Your task to perform on an android device: Add energizer triple a to the cart on costco.com, then select checkout. Image 0: 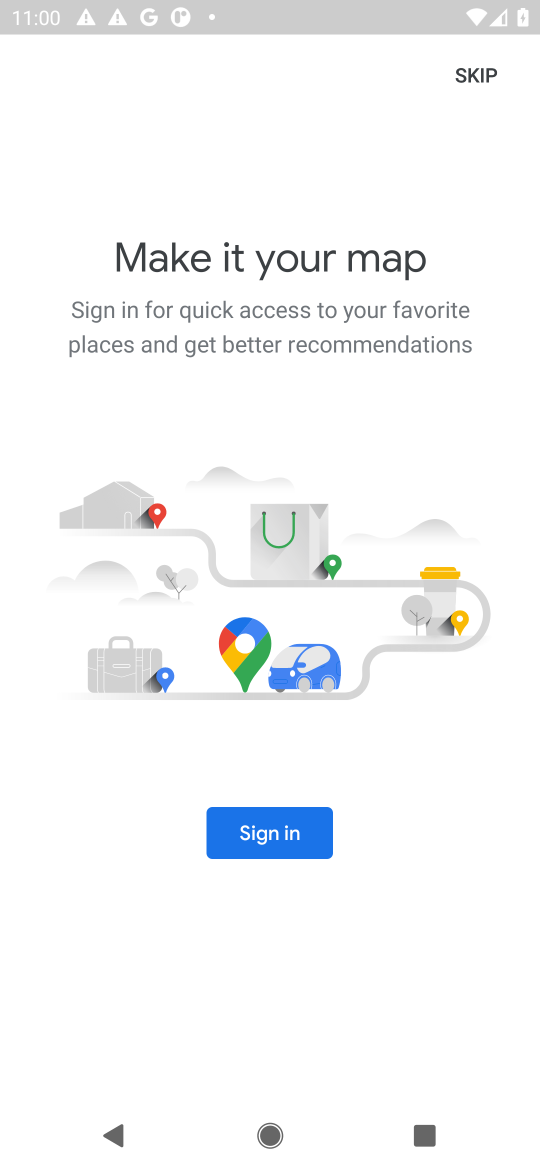
Step 0: press home button
Your task to perform on an android device: Add energizer triple a to the cart on costco.com, then select checkout. Image 1: 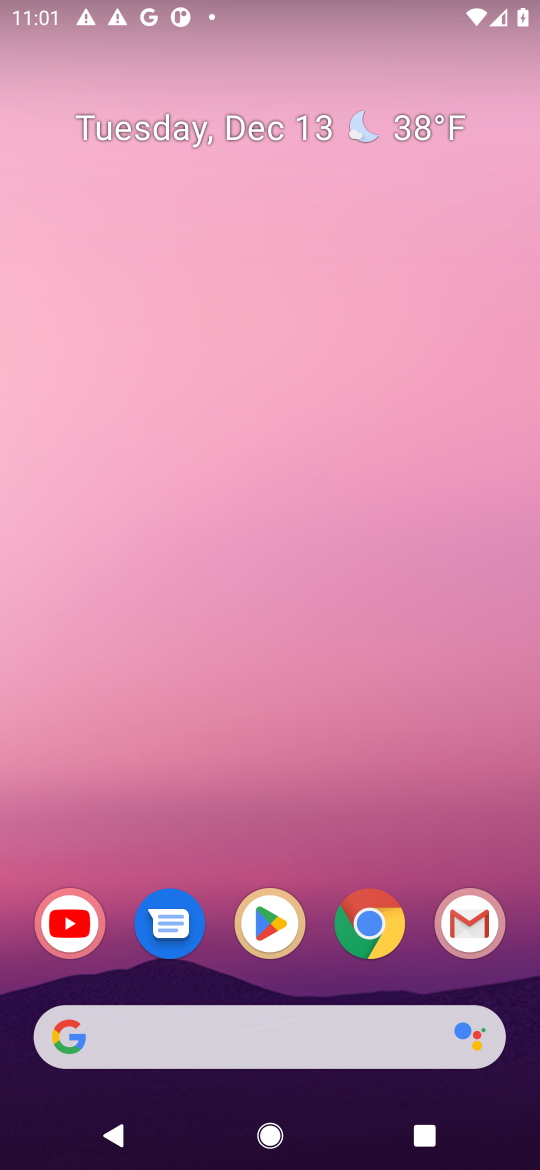
Step 1: click (348, 1034)
Your task to perform on an android device: Add energizer triple a to the cart on costco.com, then select checkout. Image 2: 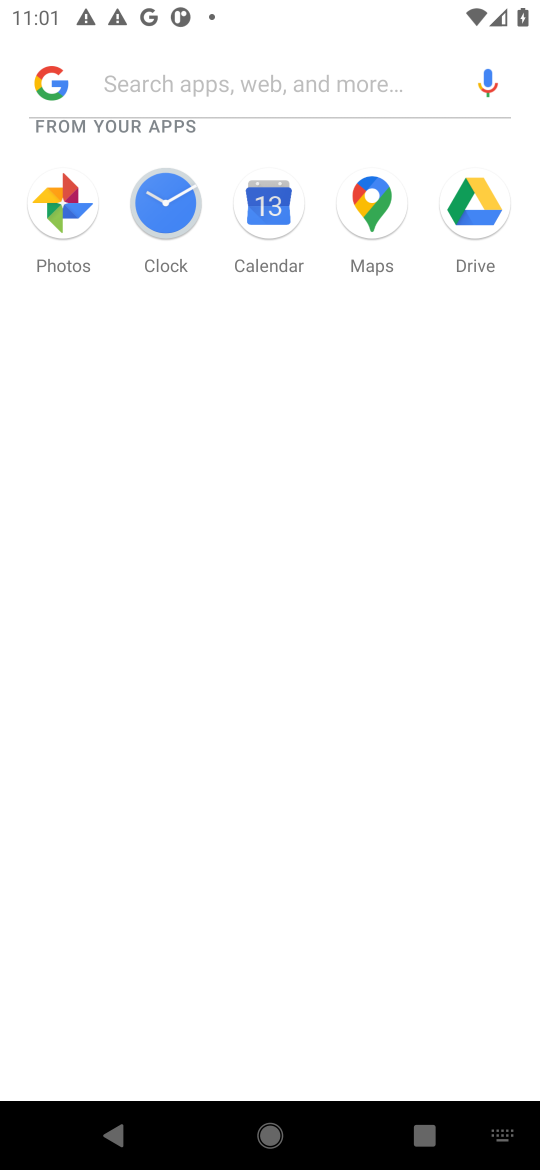
Step 2: press home button
Your task to perform on an android device: Add energizer triple a to the cart on costco.com, then select checkout. Image 3: 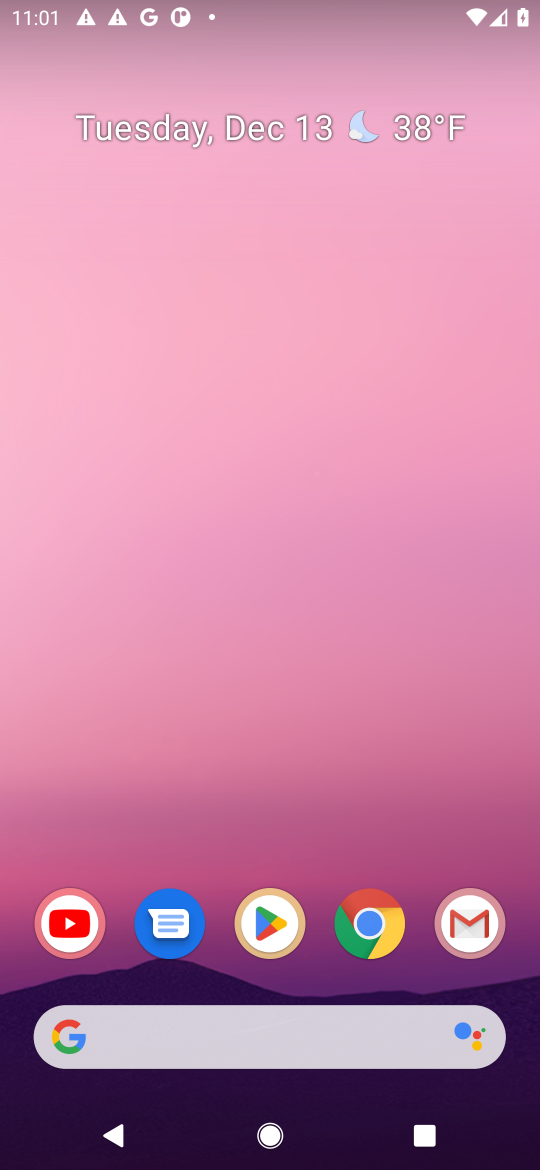
Step 3: click (277, 1049)
Your task to perform on an android device: Add energizer triple a to the cart on costco.com, then select checkout. Image 4: 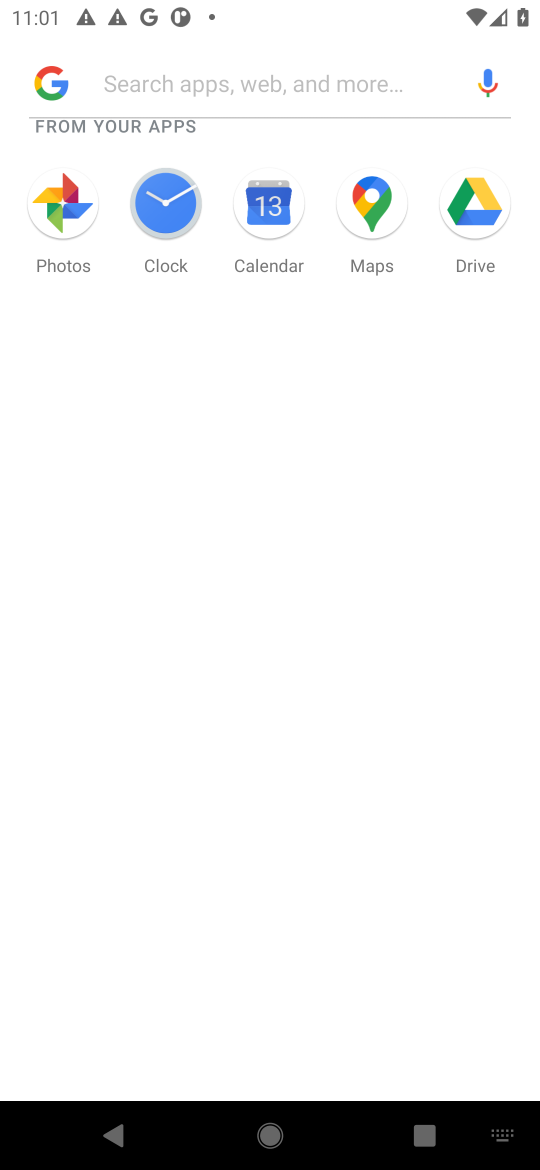
Step 4: type "costco.com"
Your task to perform on an android device: Add energizer triple a to the cart on costco.com, then select checkout. Image 5: 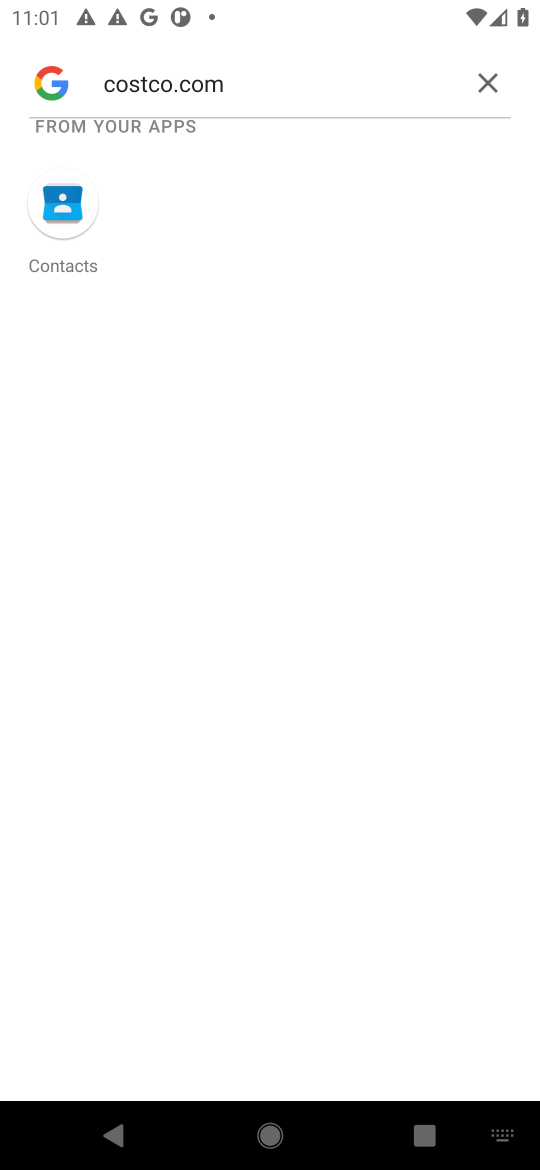
Step 5: press home button
Your task to perform on an android device: Add energizer triple a to the cart on costco.com, then select checkout. Image 6: 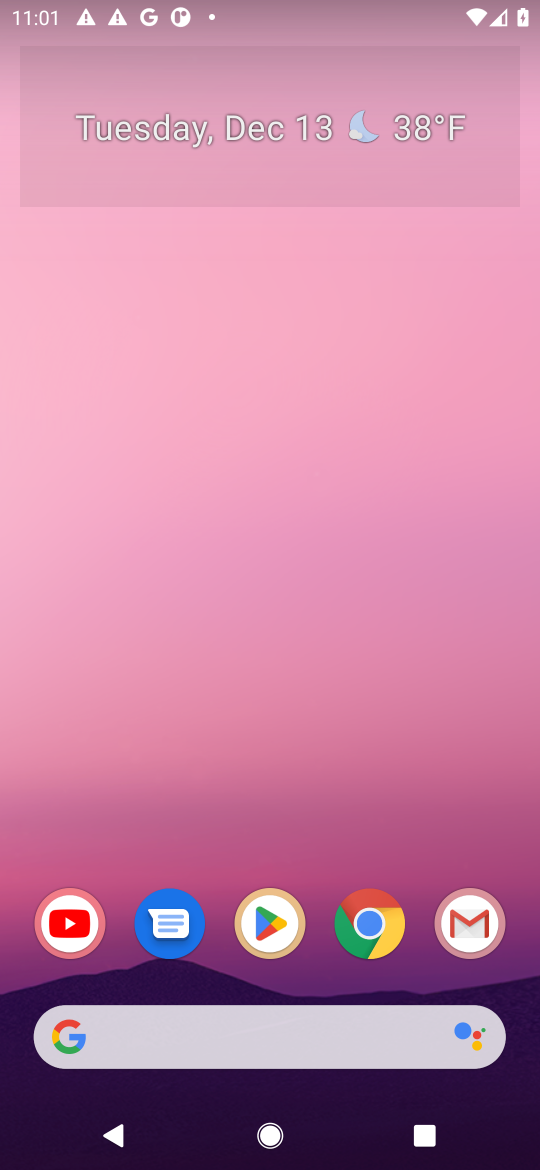
Step 6: click (379, 942)
Your task to perform on an android device: Add energizer triple a to the cart on costco.com, then select checkout. Image 7: 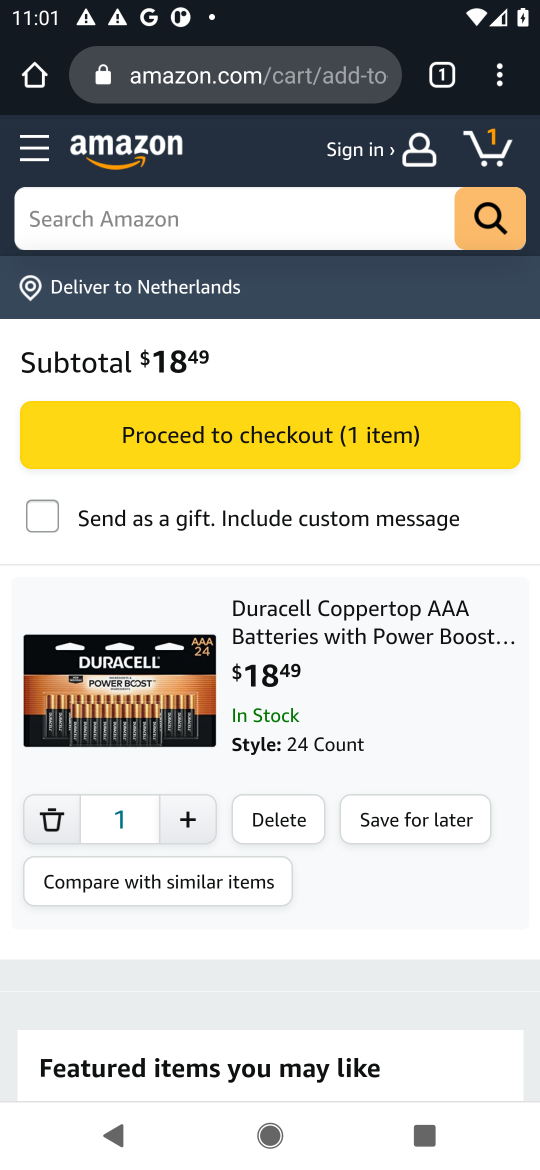
Step 7: click (291, 96)
Your task to perform on an android device: Add energizer triple a to the cart on costco.com, then select checkout. Image 8: 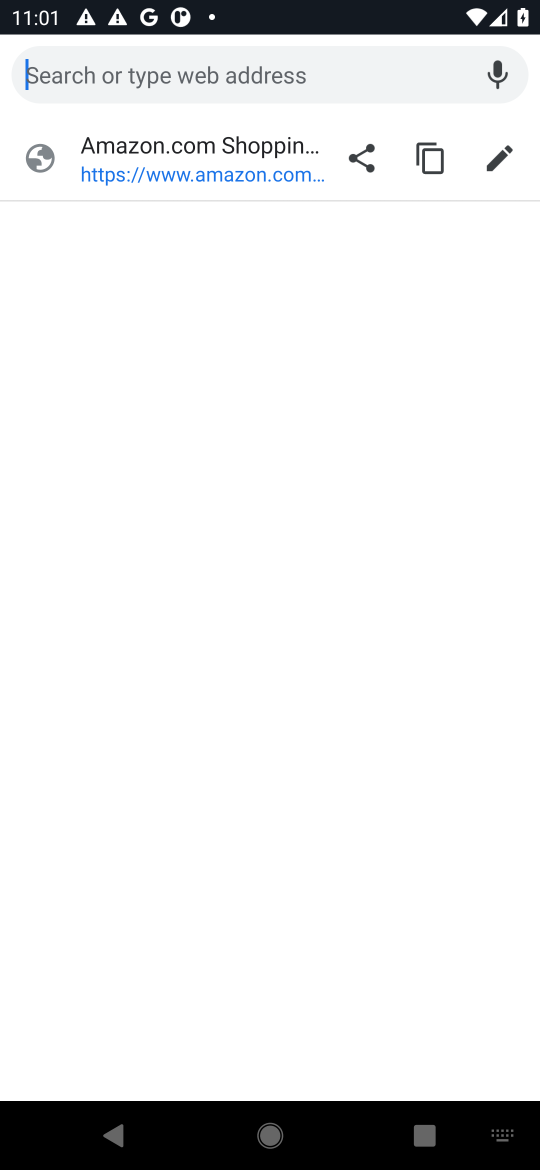
Step 8: type "costcoc.com"
Your task to perform on an android device: Add energizer triple a to the cart on costco.com, then select checkout. Image 9: 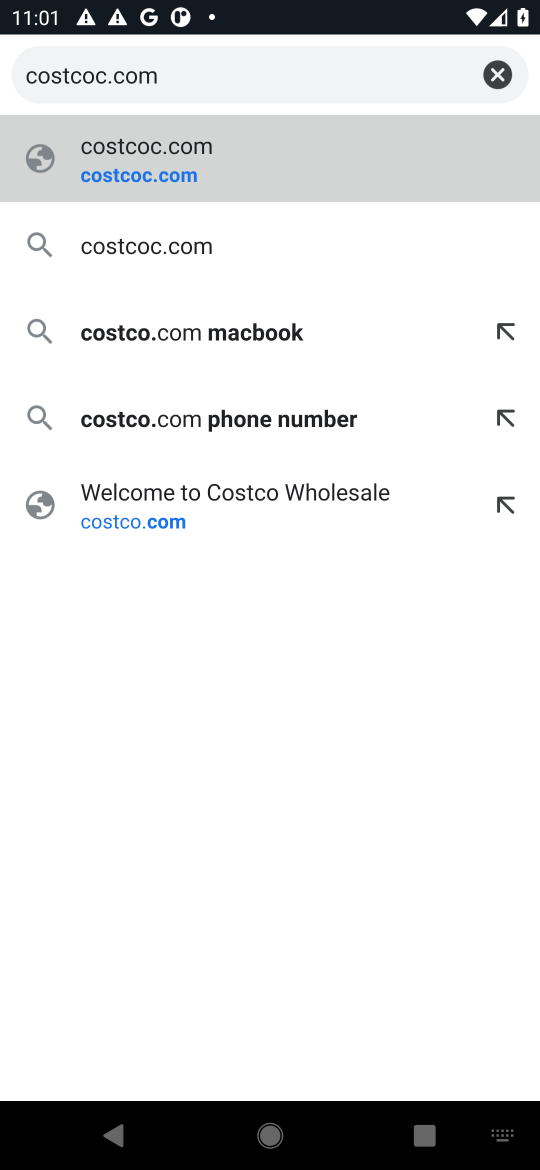
Step 9: click (245, 181)
Your task to perform on an android device: Add energizer triple a to the cart on costco.com, then select checkout. Image 10: 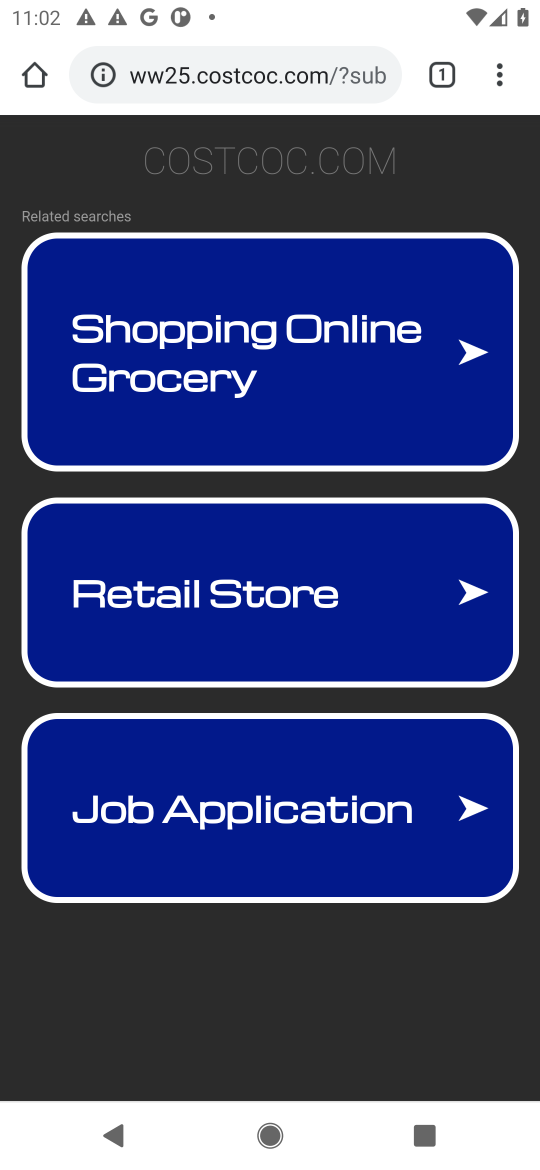
Step 10: click (290, 88)
Your task to perform on an android device: Add energizer triple a to the cart on costco.com, then select checkout. Image 11: 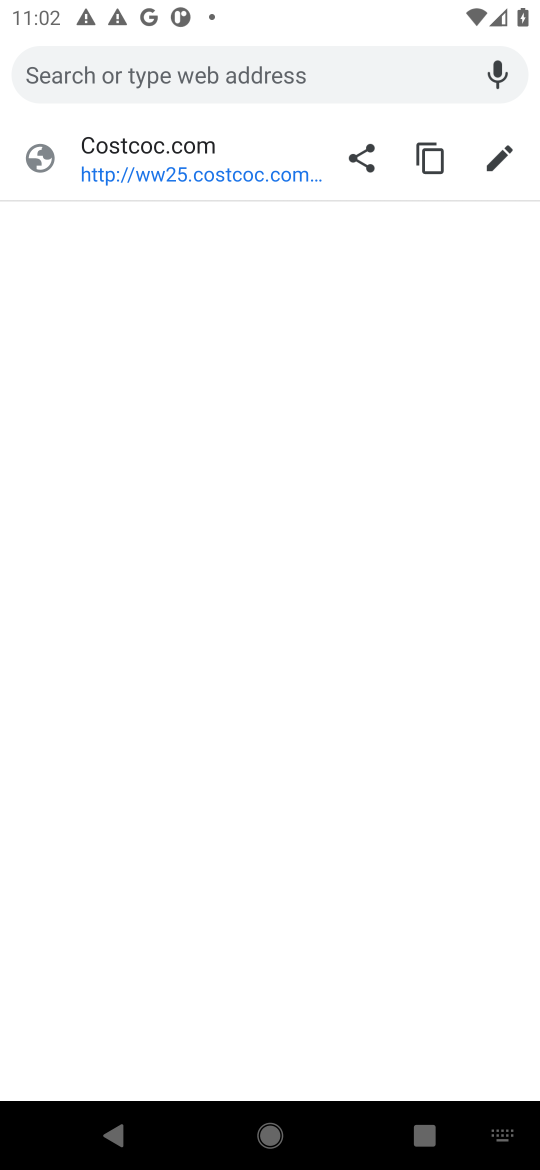
Step 11: type "costco.com"
Your task to perform on an android device: Add energizer triple a to the cart on costco.com, then select checkout. Image 12: 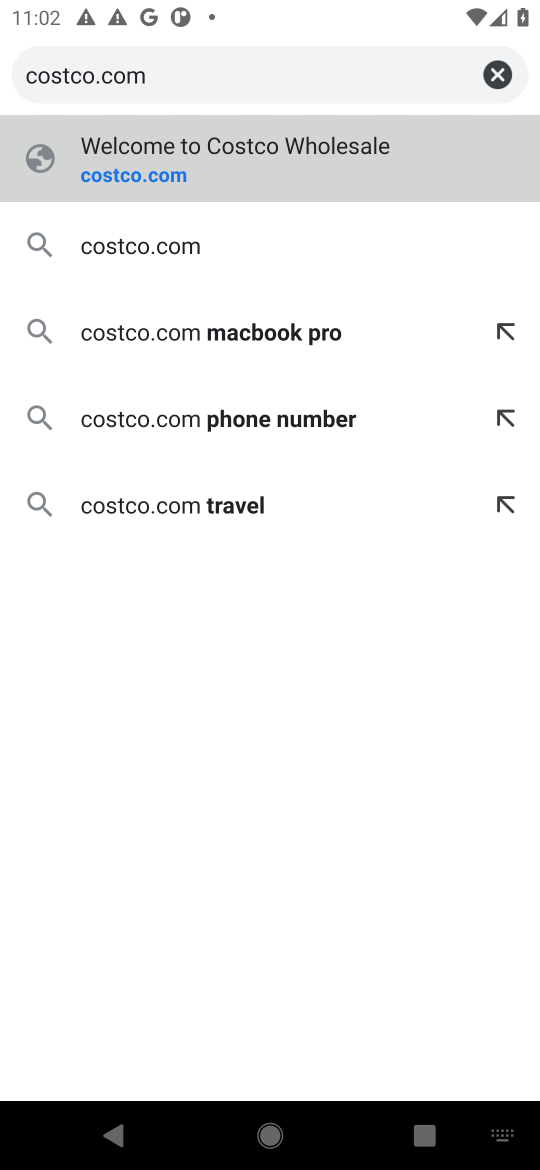
Step 12: click (206, 150)
Your task to perform on an android device: Add energizer triple a to the cart on costco.com, then select checkout. Image 13: 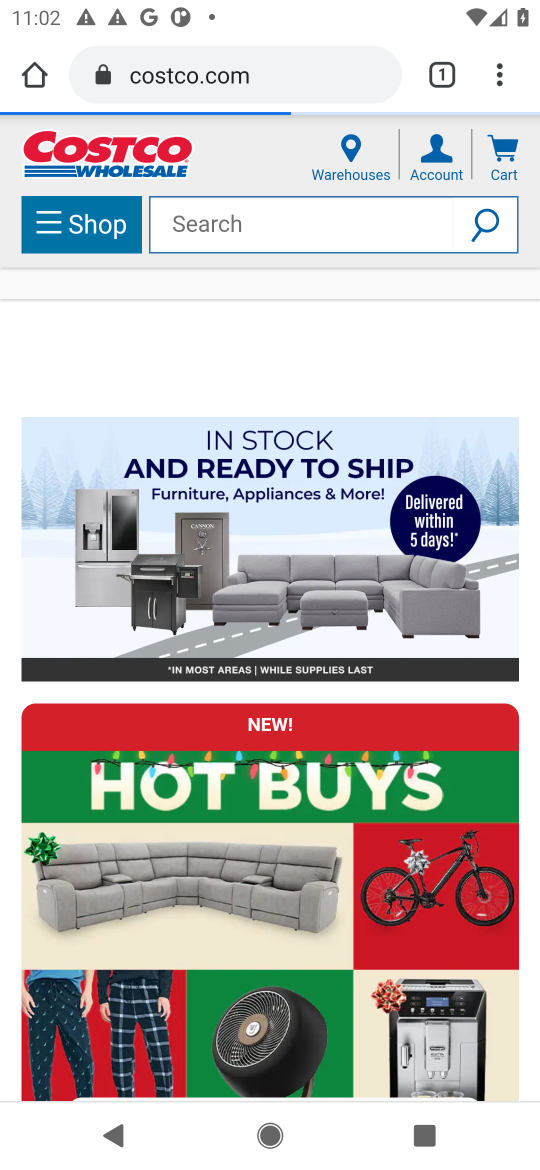
Step 13: click (174, 214)
Your task to perform on an android device: Add energizer triple a to the cart on costco.com, then select checkout. Image 14: 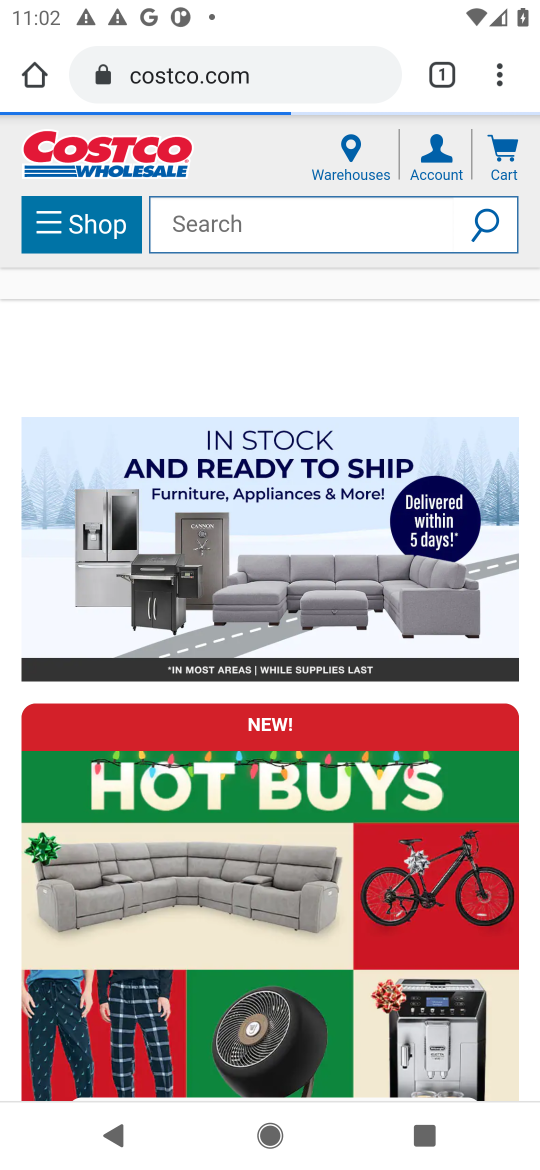
Step 14: click (299, 222)
Your task to perform on an android device: Add energizer triple a to the cart on costco.com, then select checkout. Image 15: 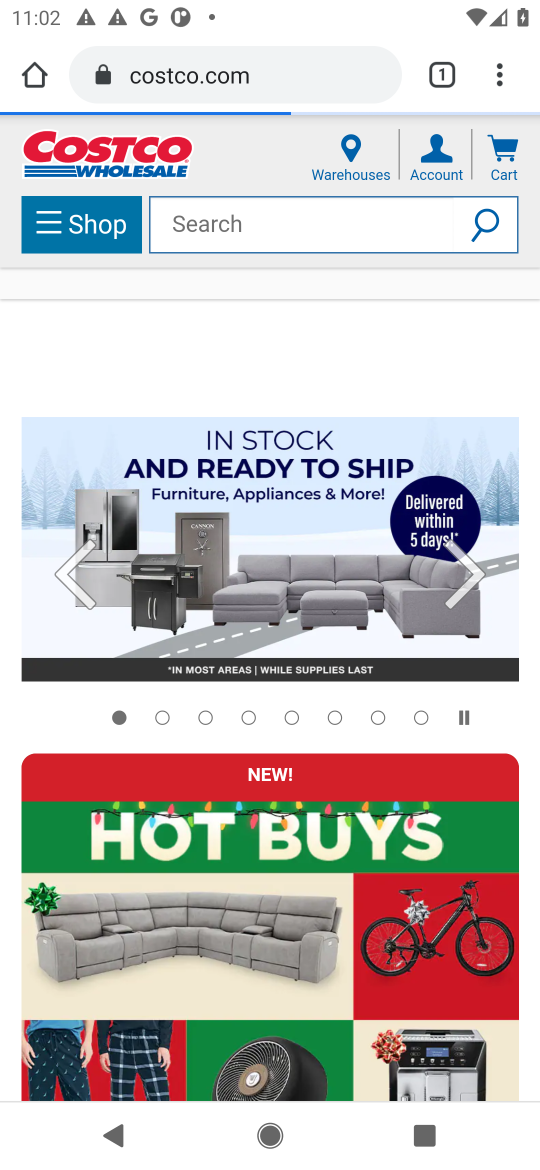
Step 15: click (299, 222)
Your task to perform on an android device: Add energizer triple a to the cart on costco.com, then select checkout. Image 16: 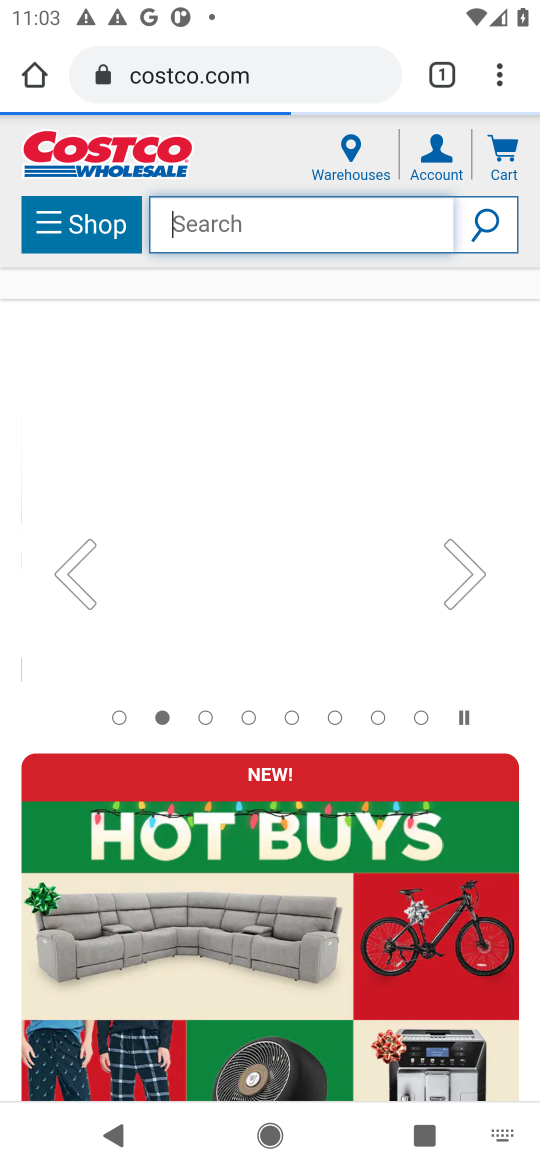
Step 16: type "energizer triple a"
Your task to perform on an android device: Add energizer triple a to the cart on costco.com, then select checkout. Image 17: 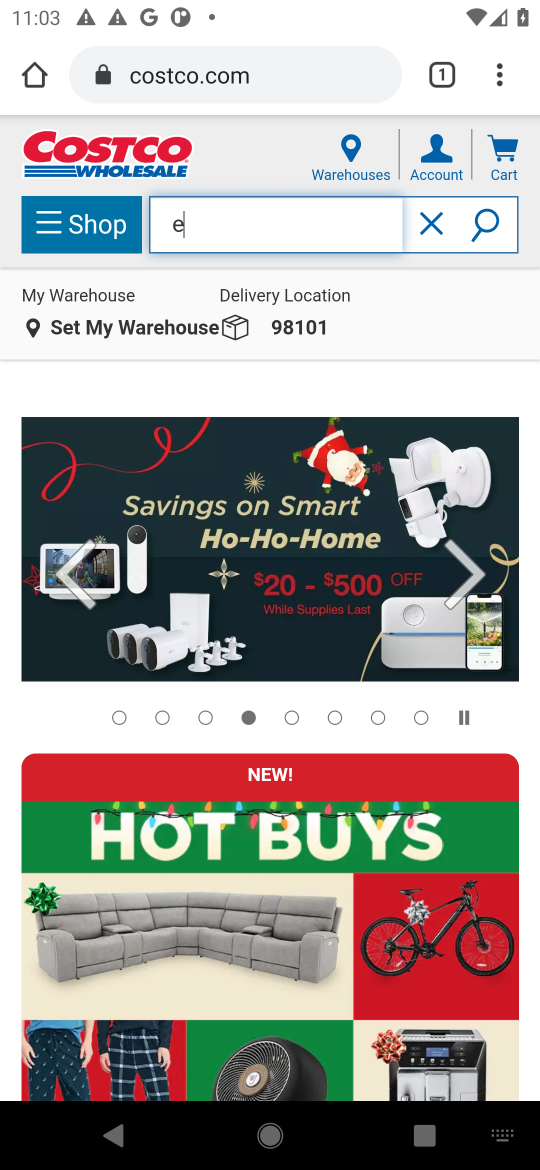
Step 17: task complete